Your task to perform on an android device: open a bookmark in the chrome app Image 0: 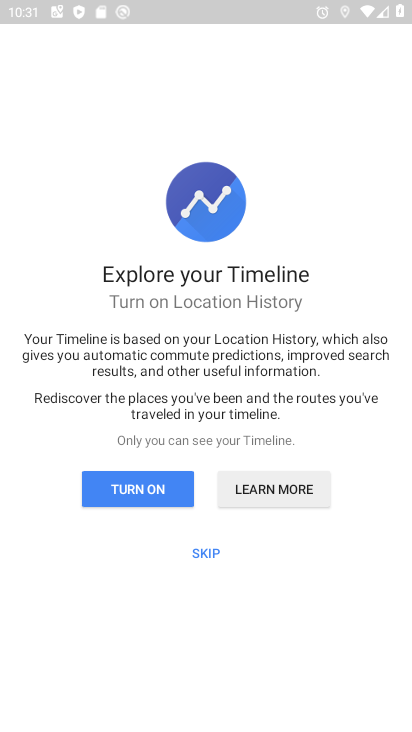
Step 0: press home button
Your task to perform on an android device: open a bookmark in the chrome app Image 1: 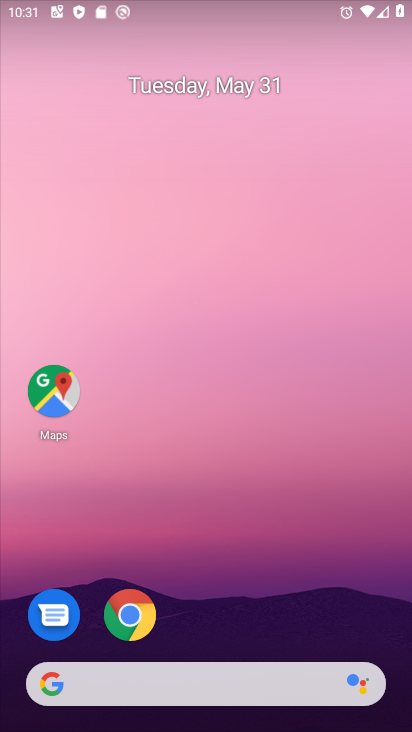
Step 1: drag from (339, 606) to (393, 102)
Your task to perform on an android device: open a bookmark in the chrome app Image 2: 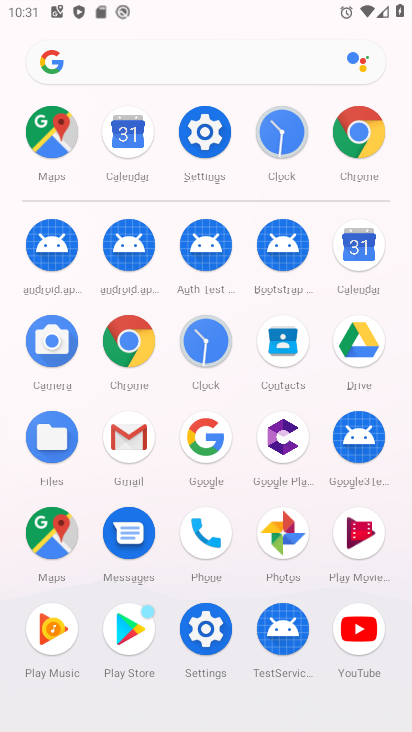
Step 2: click (356, 139)
Your task to perform on an android device: open a bookmark in the chrome app Image 3: 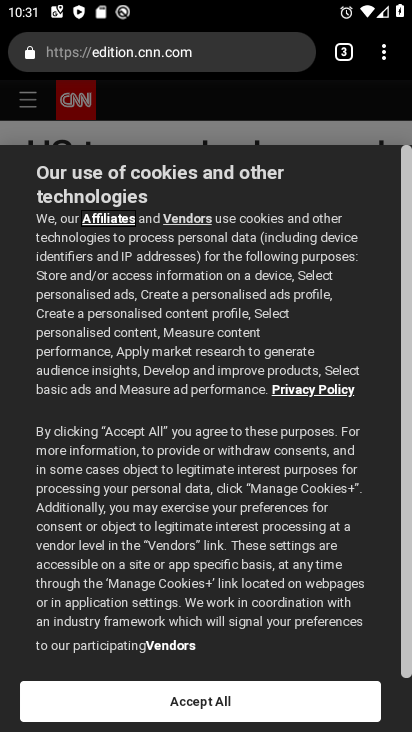
Step 3: task complete